Your task to perform on an android device: turn off picture-in-picture Image 0: 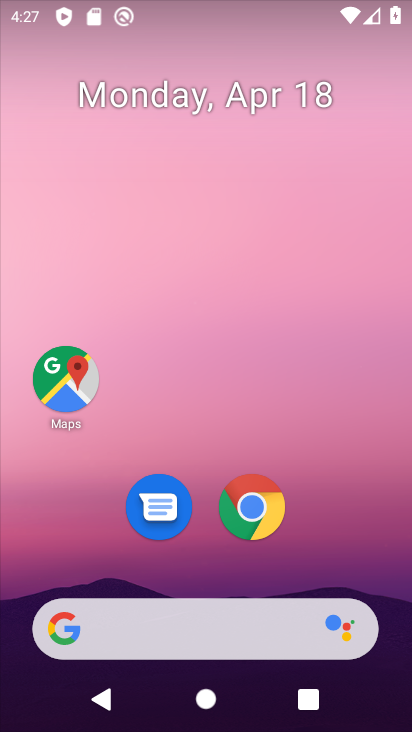
Step 0: drag from (283, 566) to (256, 24)
Your task to perform on an android device: turn off picture-in-picture Image 1: 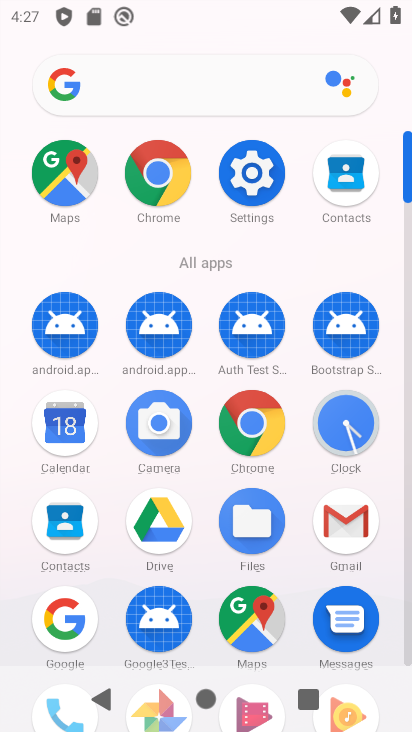
Step 1: click (261, 177)
Your task to perform on an android device: turn off picture-in-picture Image 2: 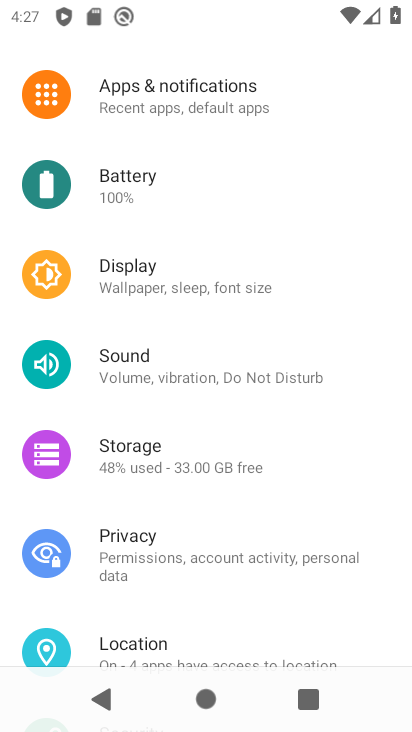
Step 2: drag from (252, 579) to (266, 170)
Your task to perform on an android device: turn off picture-in-picture Image 3: 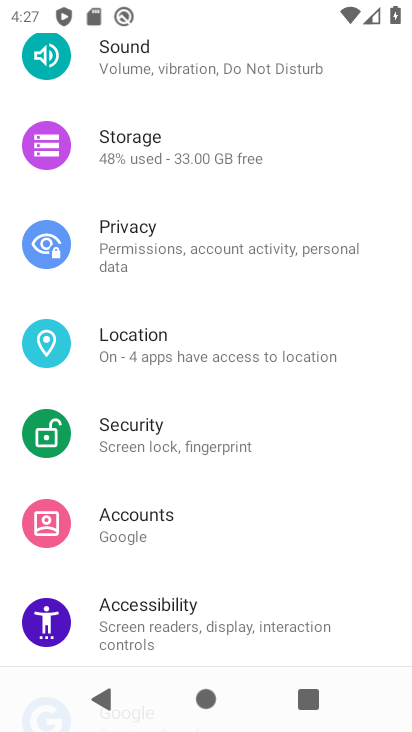
Step 3: drag from (283, 207) to (293, 679)
Your task to perform on an android device: turn off picture-in-picture Image 4: 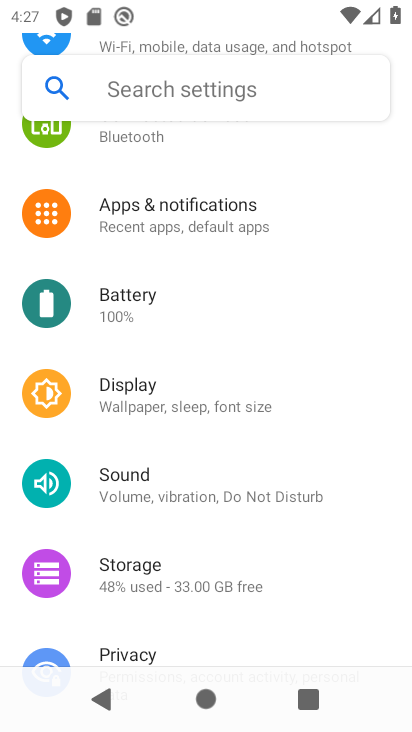
Step 4: drag from (245, 280) to (225, 591)
Your task to perform on an android device: turn off picture-in-picture Image 5: 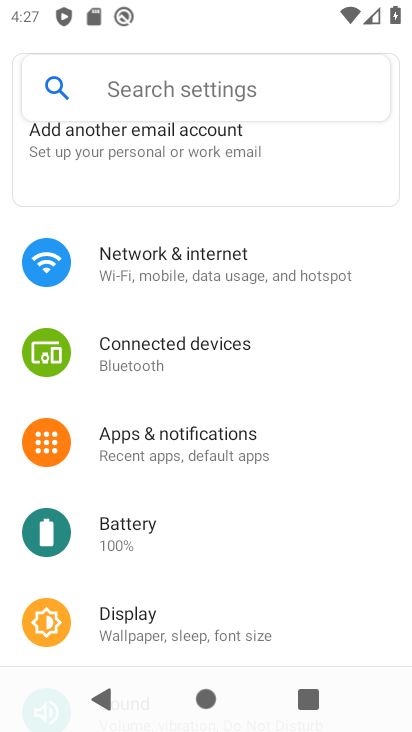
Step 5: click (176, 449)
Your task to perform on an android device: turn off picture-in-picture Image 6: 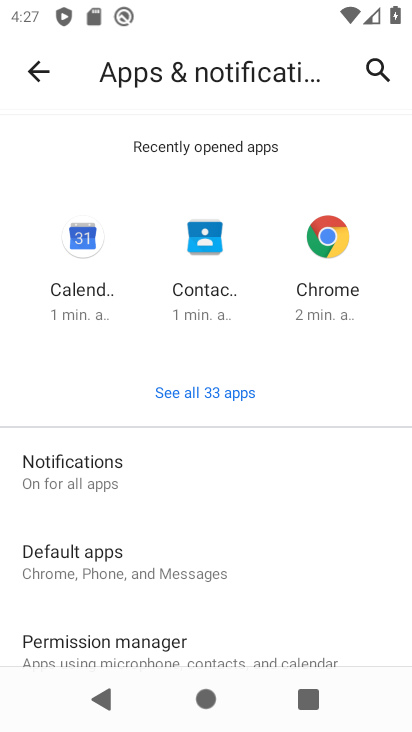
Step 6: drag from (200, 549) to (222, 127)
Your task to perform on an android device: turn off picture-in-picture Image 7: 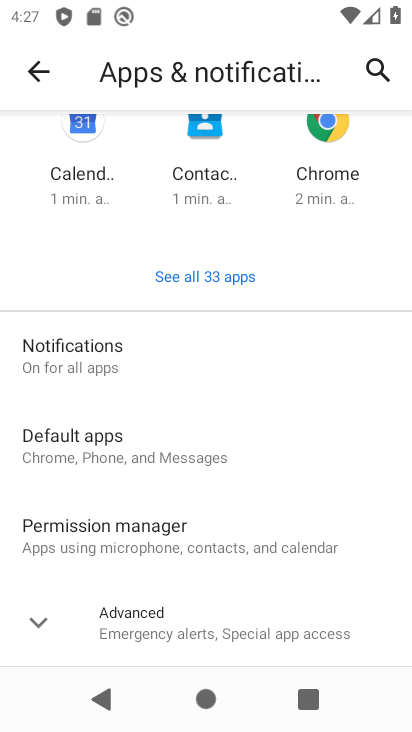
Step 7: click (195, 625)
Your task to perform on an android device: turn off picture-in-picture Image 8: 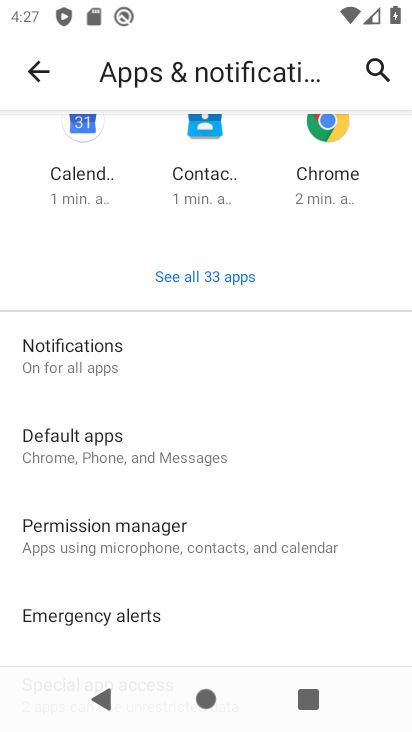
Step 8: drag from (299, 578) to (327, 319)
Your task to perform on an android device: turn off picture-in-picture Image 9: 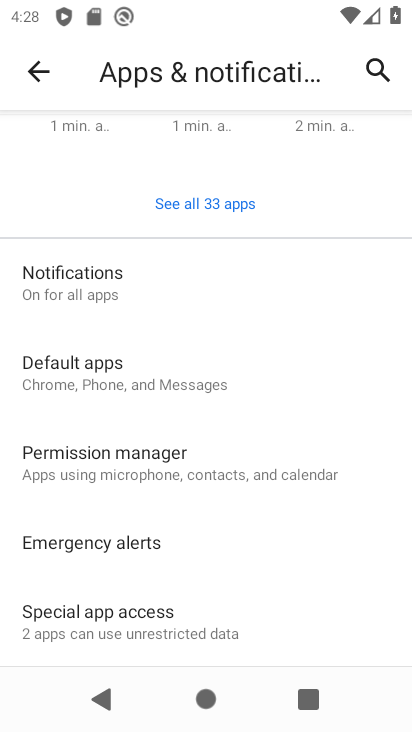
Step 9: click (199, 620)
Your task to perform on an android device: turn off picture-in-picture Image 10: 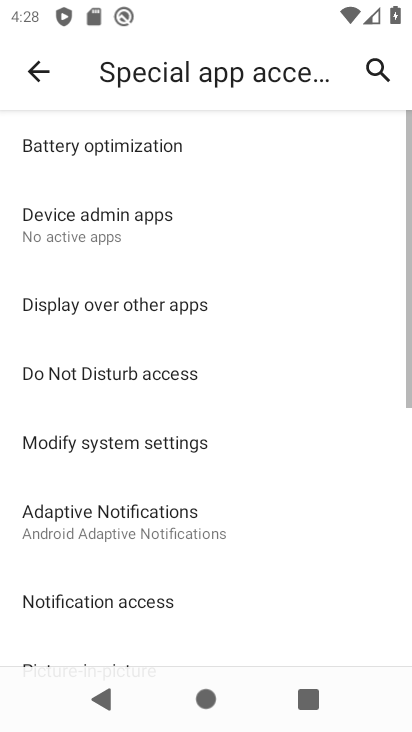
Step 10: drag from (249, 555) to (278, 184)
Your task to perform on an android device: turn off picture-in-picture Image 11: 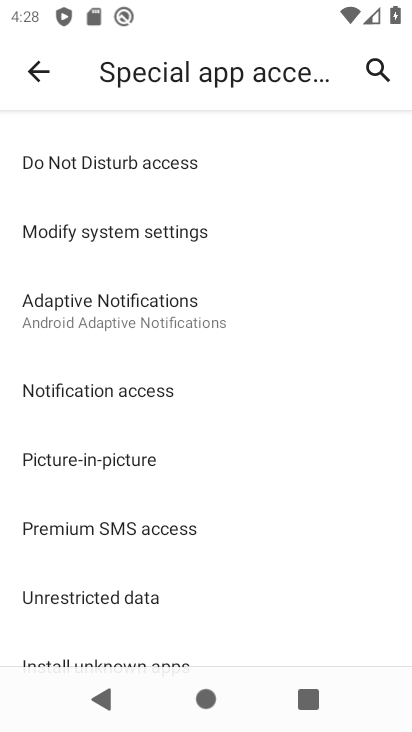
Step 11: click (178, 455)
Your task to perform on an android device: turn off picture-in-picture Image 12: 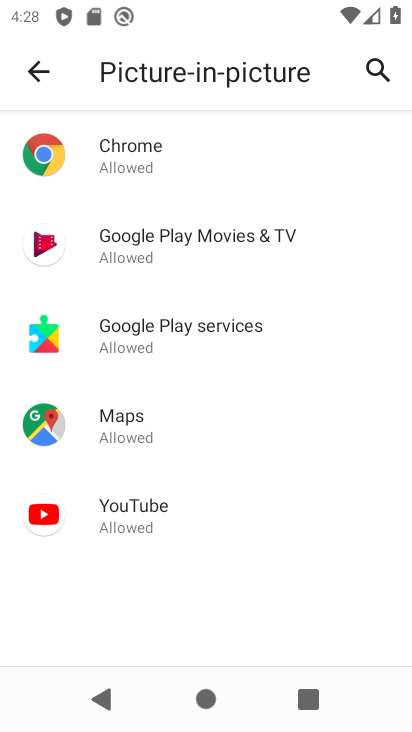
Step 12: click (184, 152)
Your task to perform on an android device: turn off picture-in-picture Image 13: 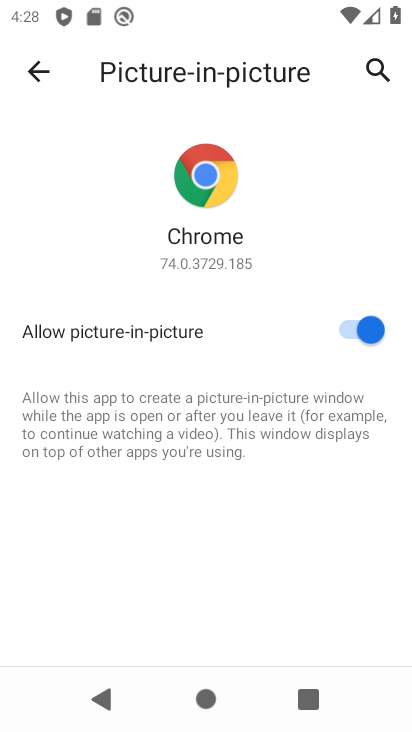
Step 13: click (351, 330)
Your task to perform on an android device: turn off picture-in-picture Image 14: 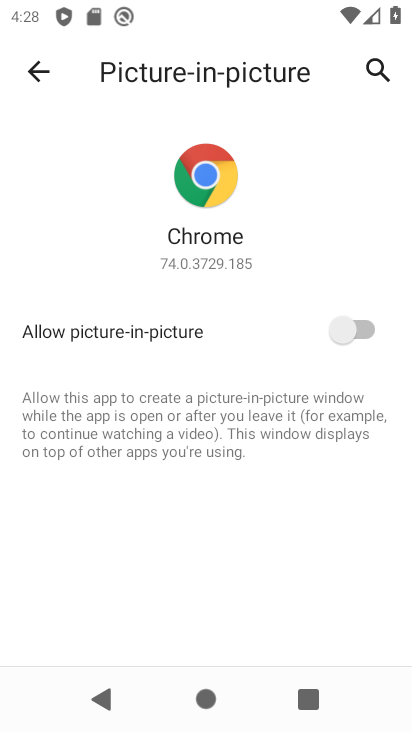
Step 14: click (32, 68)
Your task to perform on an android device: turn off picture-in-picture Image 15: 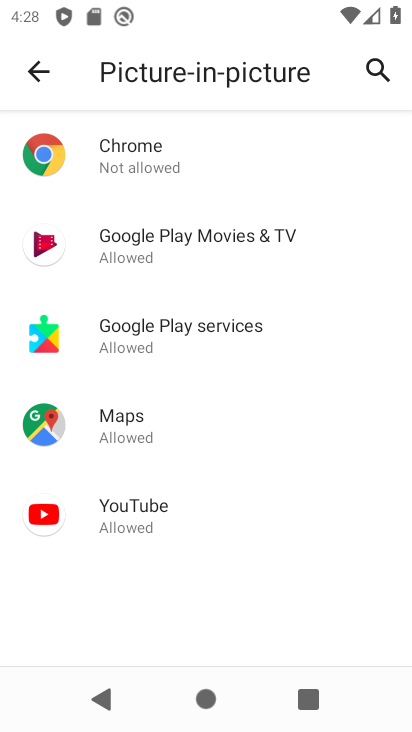
Step 15: click (339, 226)
Your task to perform on an android device: turn off picture-in-picture Image 16: 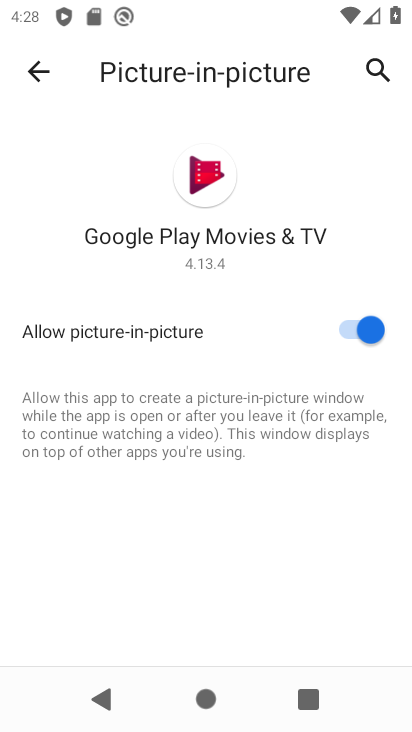
Step 16: click (347, 326)
Your task to perform on an android device: turn off picture-in-picture Image 17: 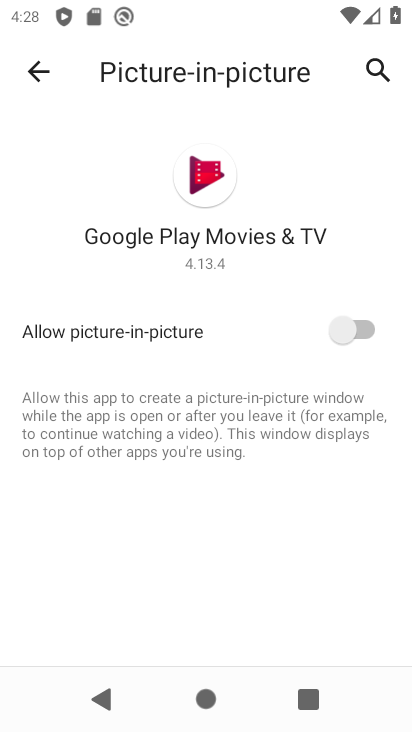
Step 17: click (29, 67)
Your task to perform on an android device: turn off picture-in-picture Image 18: 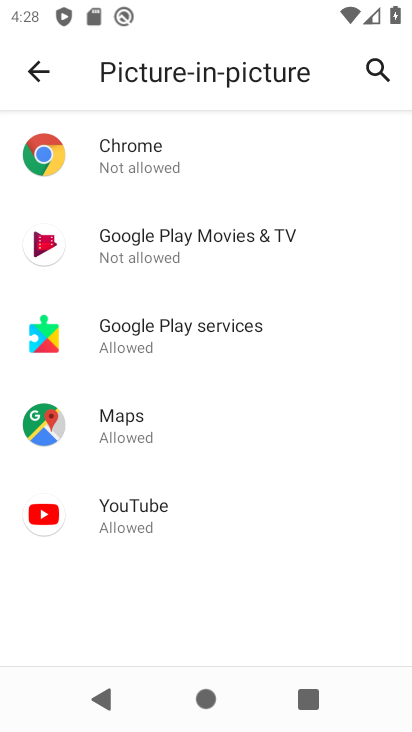
Step 18: click (252, 351)
Your task to perform on an android device: turn off picture-in-picture Image 19: 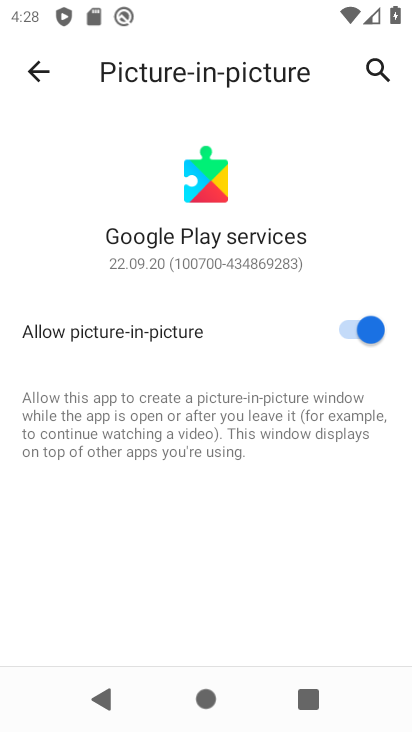
Step 19: click (341, 331)
Your task to perform on an android device: turn off picture-in-picture Image 20: 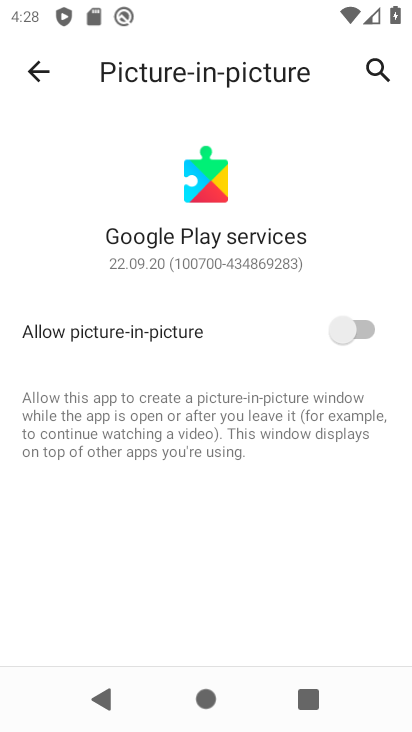
Step 20: click (35, 67)
Your task to perform on an android device: turn off picture-in-picture Image 21: 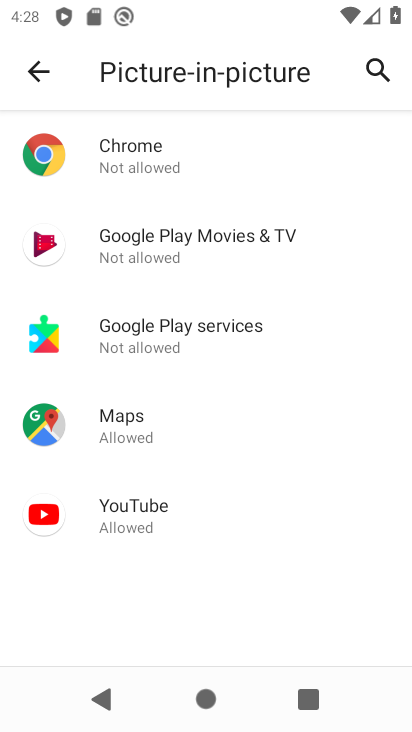
Step 21: click (189, 408)
Your task to perform on an android device: turn off picture-in-picture Image 22: 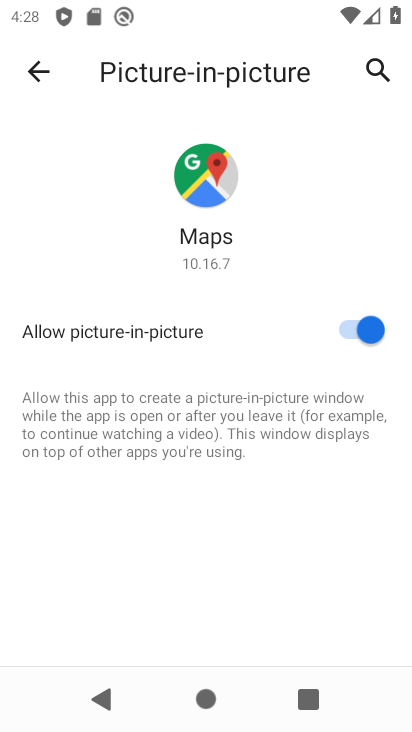
Step 22: click (348, 334)
Your task to perform on an android device: turn off picture-in-picture Image 23: 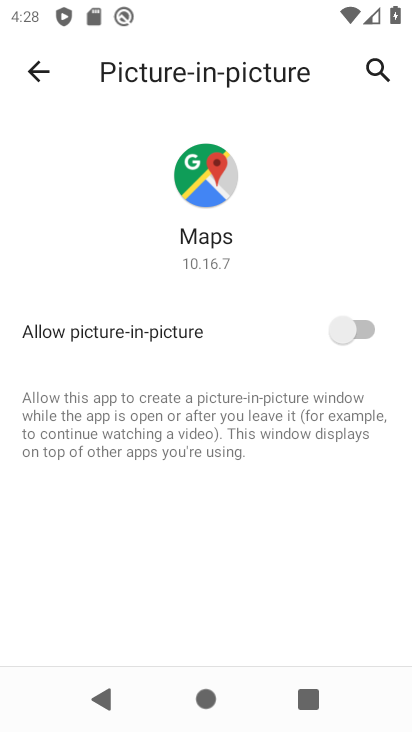
Step 23: click (28, 69)
Your task to perform on an android device: turn off picture-in-picture Image 24: 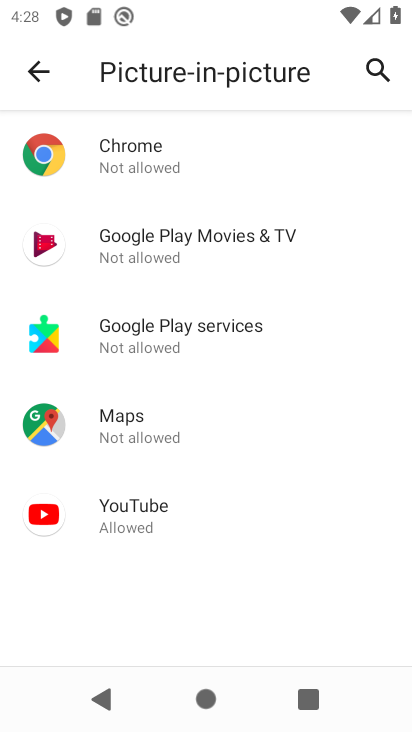
Step 24: click (211, 506)
Your task to perform on an android device: turn off picture-in-picture Image 25: 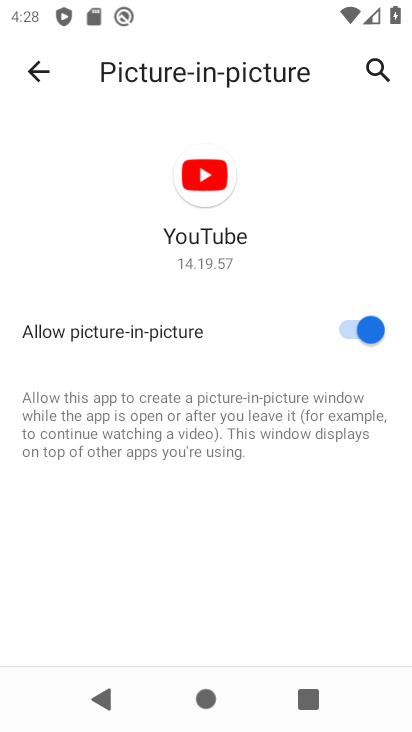
Step 25: click (346, 327)
Your task to perform on an android device: turn off picture-in-picture Image 26: 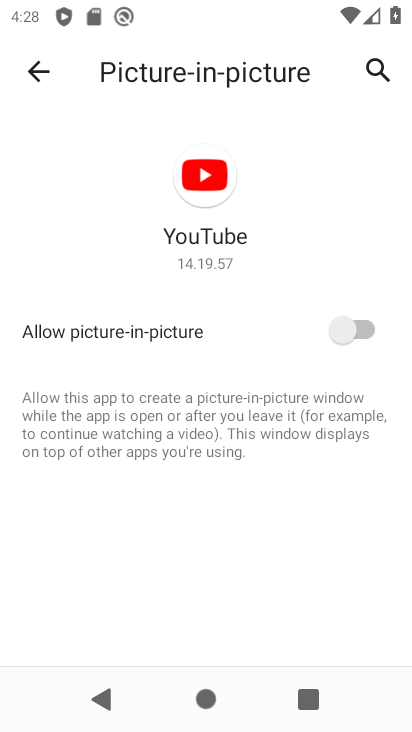
Step 26: task complete